Your task to perform on an android device: show emergency info Image 0: 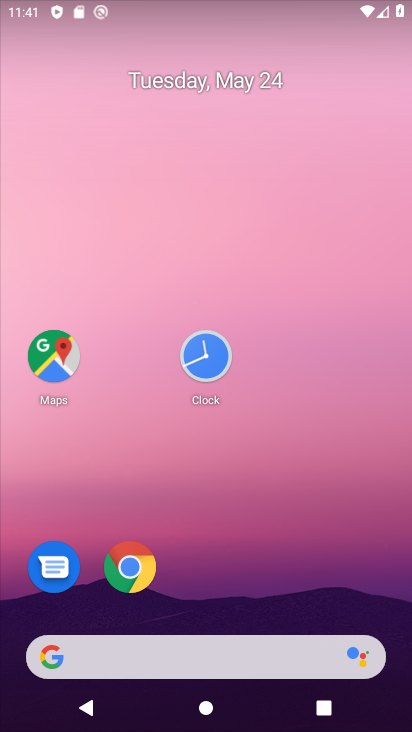
Step 0: drag from (236, 560) to (321, 126)
Your task to perform on an android device: show emergency info Image 1: 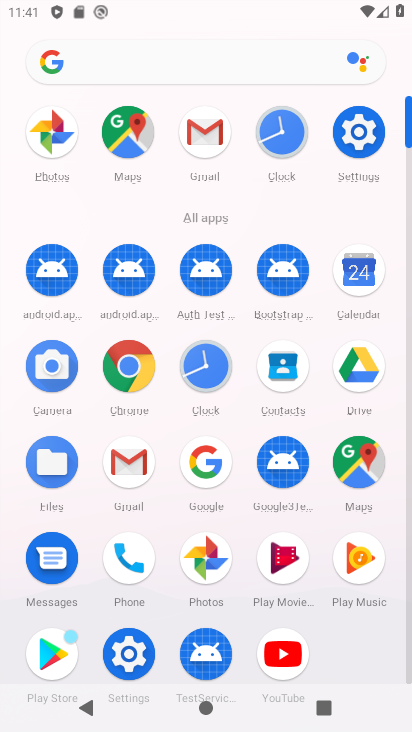
Step 1: drag from (348, 136) to (63, 279)
Your task to perform on an android device: show emergency info Image 2: 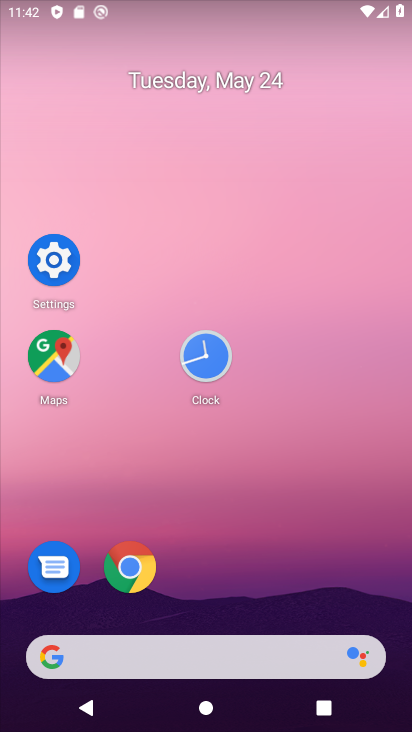
Step 2: click (50, 275)
Your task to perform on an android device: show emergency info Image 3: 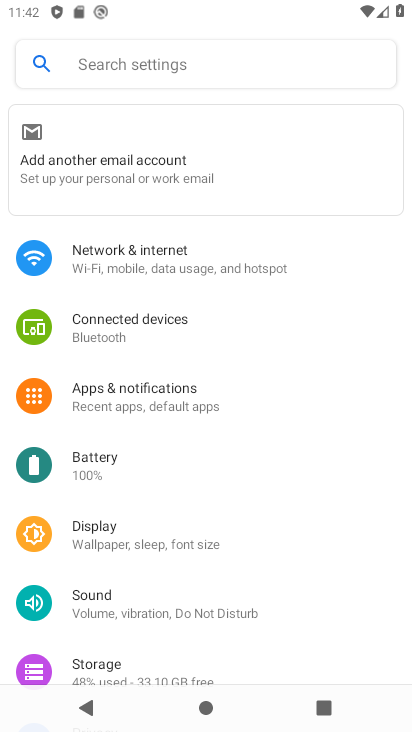
Step 3: drag from (177, 623) to (273, 194)
Your task to perform on an android device: show emergency info Image 4: 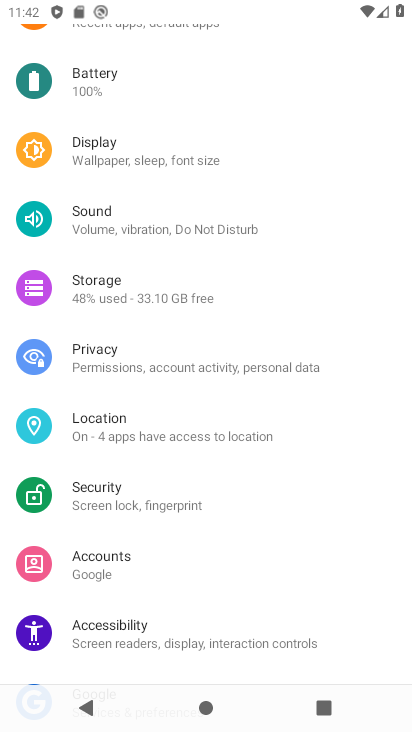
Step 4: drag from (174, 579) to (248, 241)
Your task to perform on an android device: show emergency info Image 5: 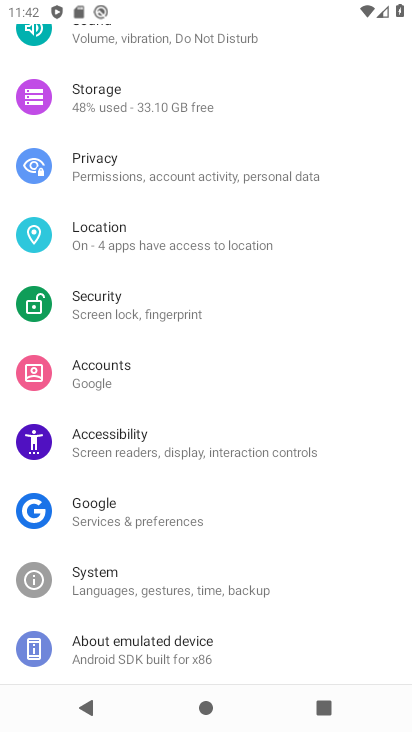
Step 5: click (187, 652)
Your task to perform on an android device: show emergency info Image 6: 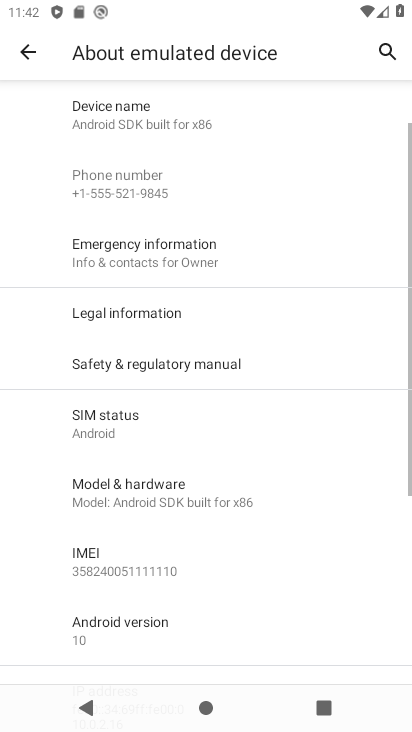
Step 6: click (192, 263)
Your task to perform on an android device: show emergency info Image 7: 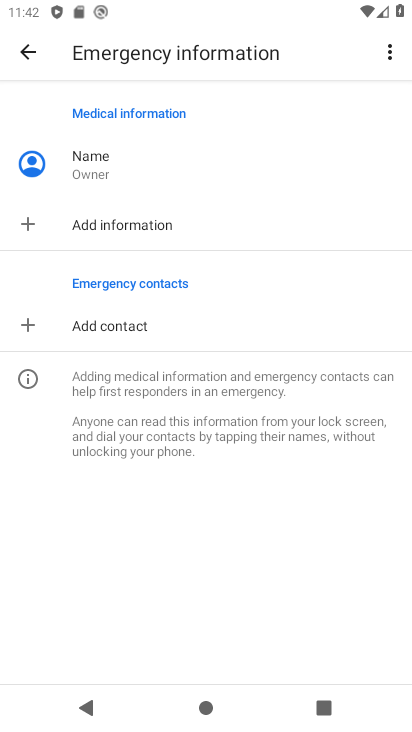
Step 7: task complete